Your task to perform on an android device: install app "Google Sheets" Image 0: 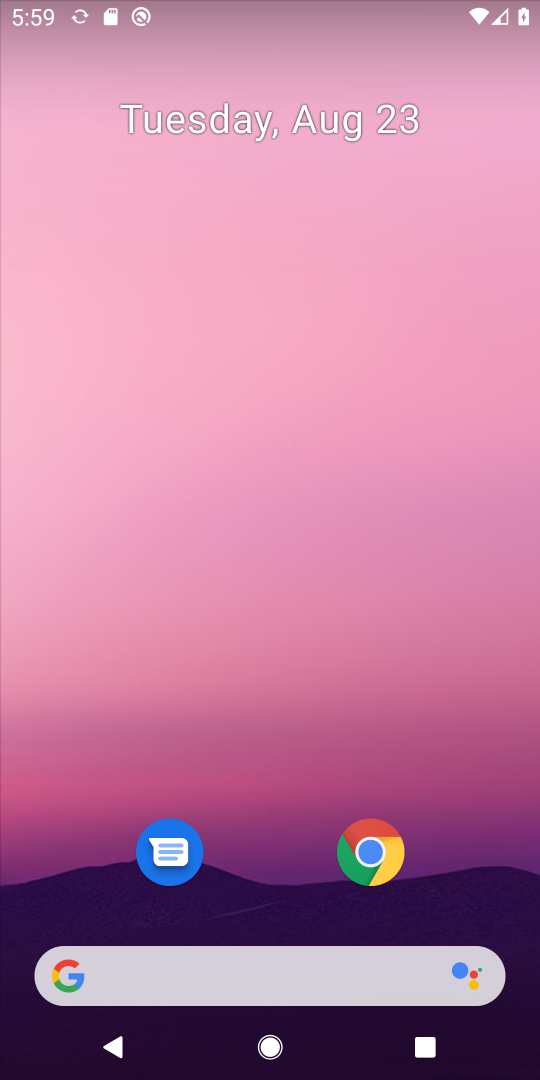
Step 0: drag from (217, 968) to (328, 122)
Your task to perform on an android device: install app "Google Sheets" Image 1: 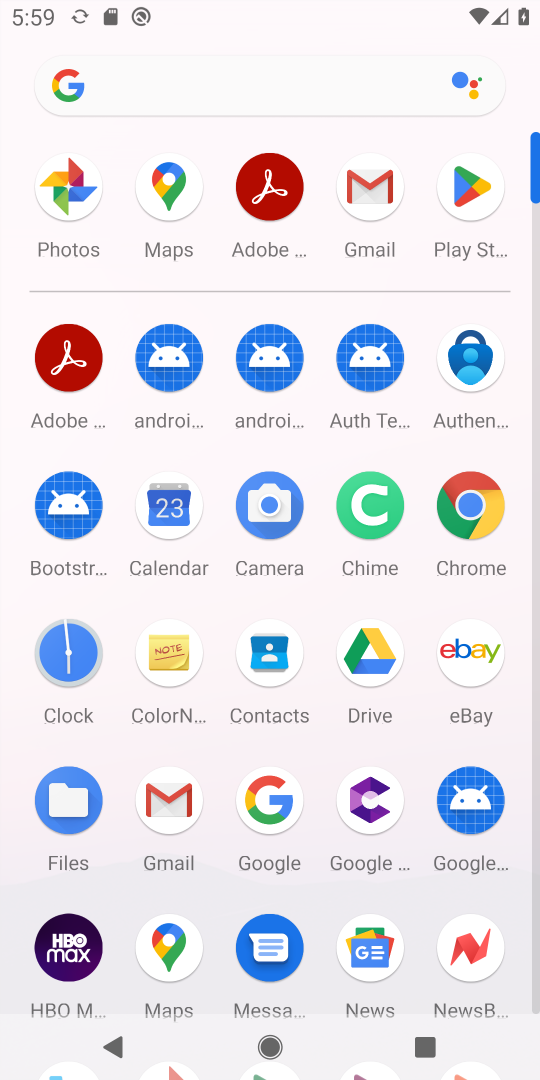
Step 1: click (474, 194)
Your task to perform on an android device: install app "Google Sheets" Image 2: 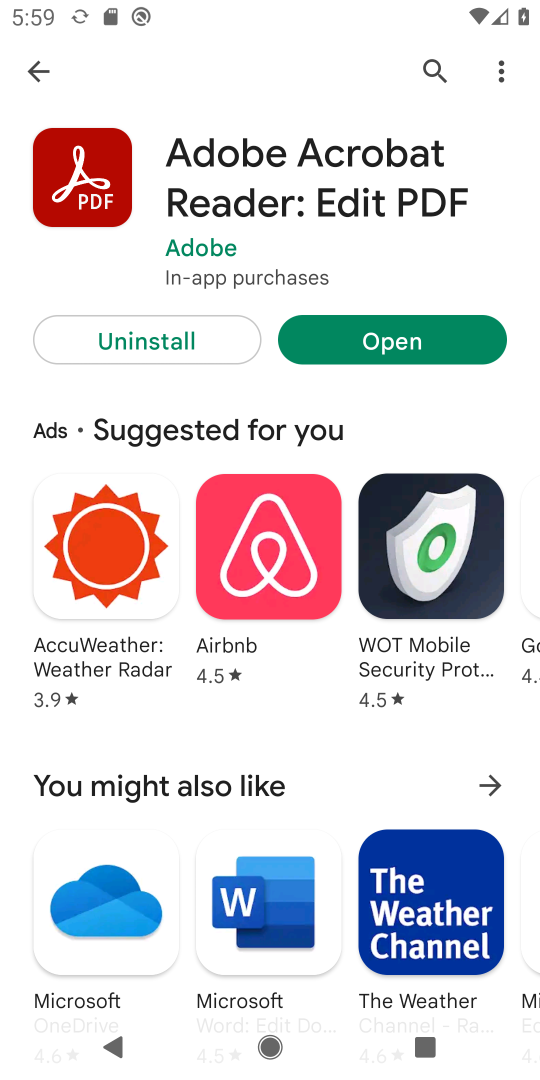
Step 2: press back button
Your task to perform on an android device: install app "Google Sheets" Image 3: 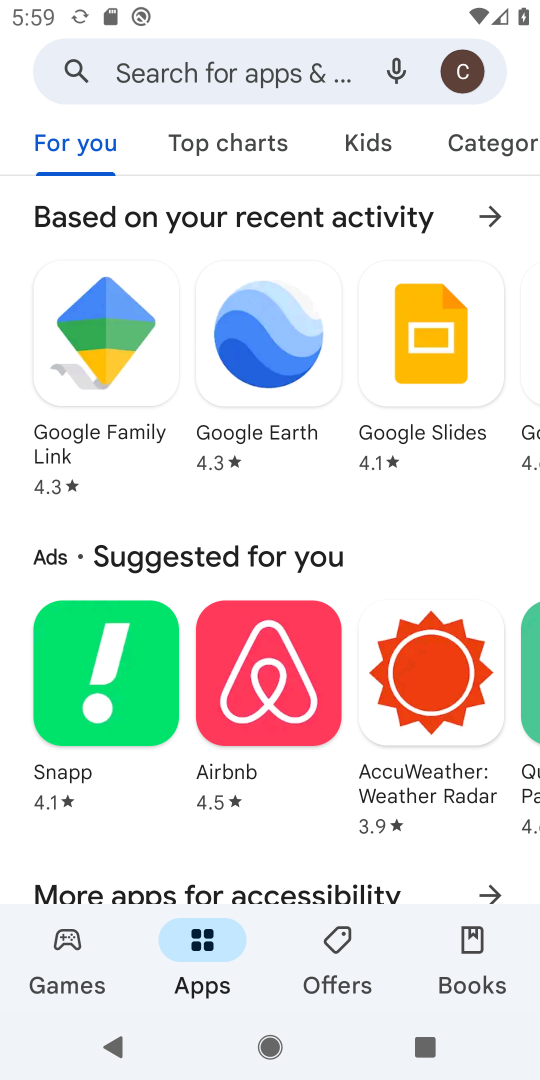
Step 3: click (255, 78)
Your task to perform on an android device: install app "Google Sheets" Image 4: 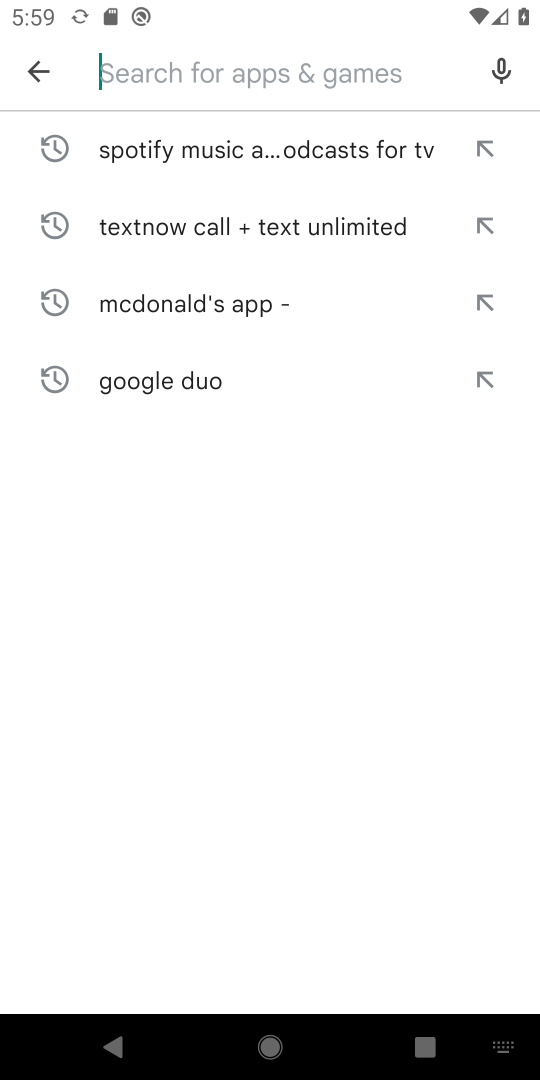
Step 4: type "Google Sheets"
Your task to perform on an android device: install app "Google Sheets" Image 5: 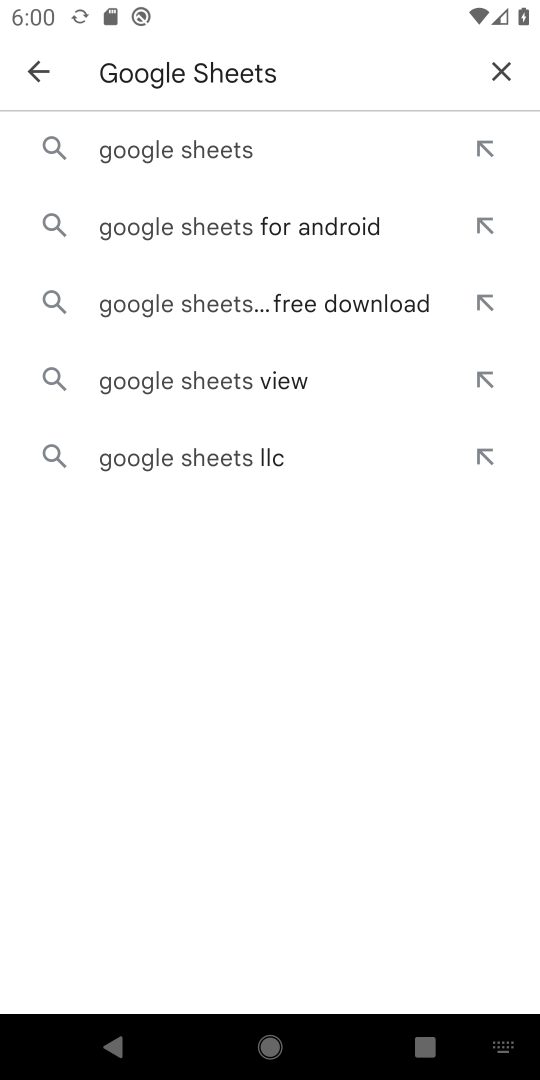
Step 5: click (225, 150)
Your task to perform on an android device: install app "Google Sheets" Image 6: 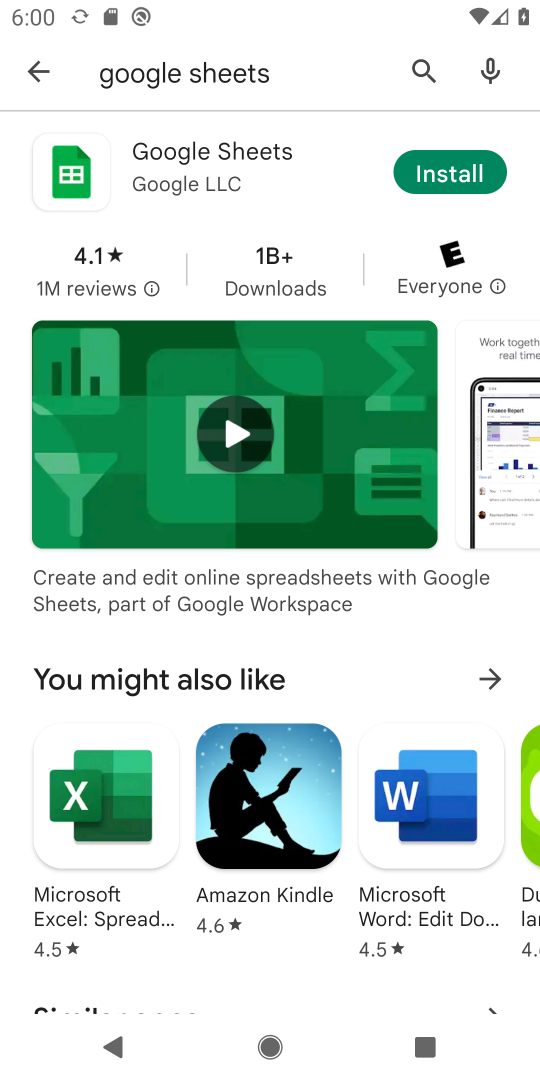
Step 6: click (432, 178)
Your task to perform on an android device: install app "Google Sheets" Image 7: 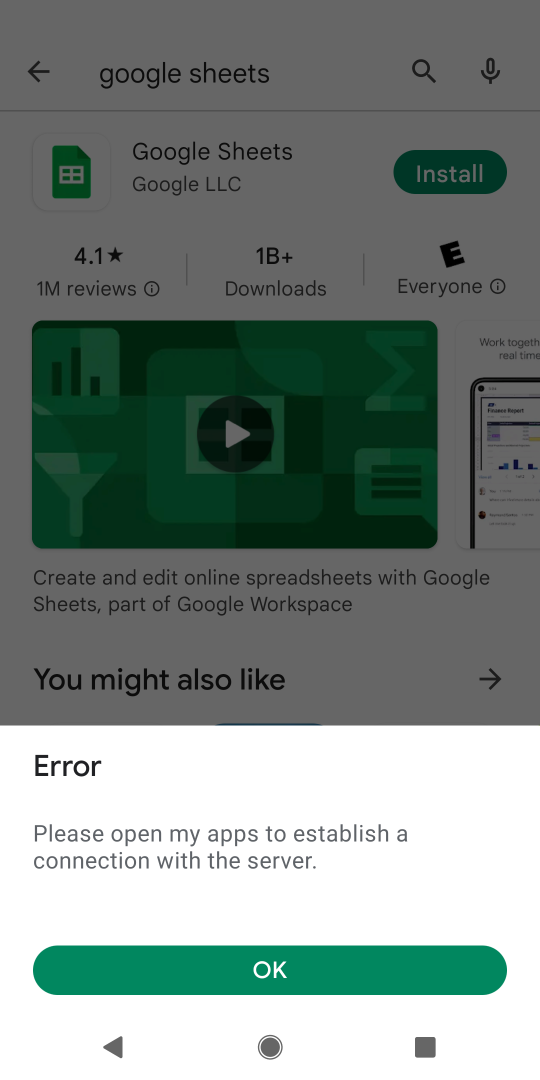
Step 7: click (275, 965)
Your task to perform on an android device: install app "Google Sheets" Image 8: 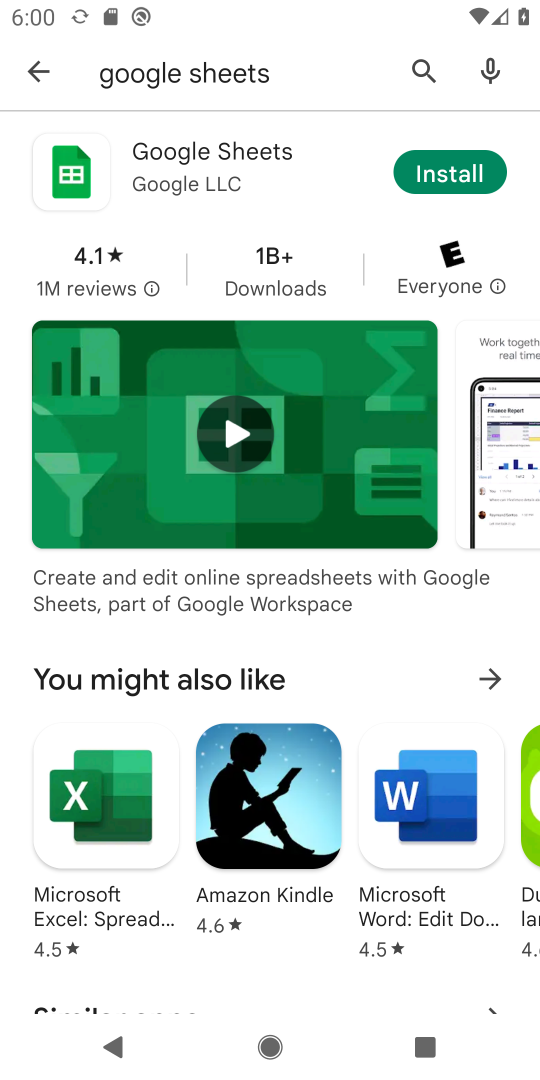
Step 8: click (439, 182)
Your task to perform on an android device: install app "Google Sheets" Image 9: 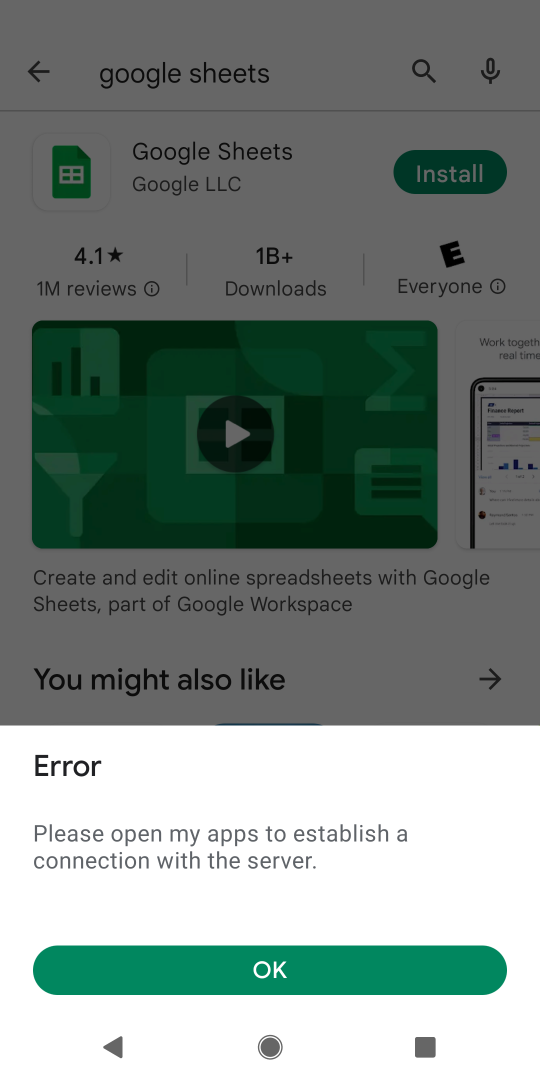
Step 9: click (203, 961)
Your task to perform on an android device: install app "Google Sheets" Image 10: 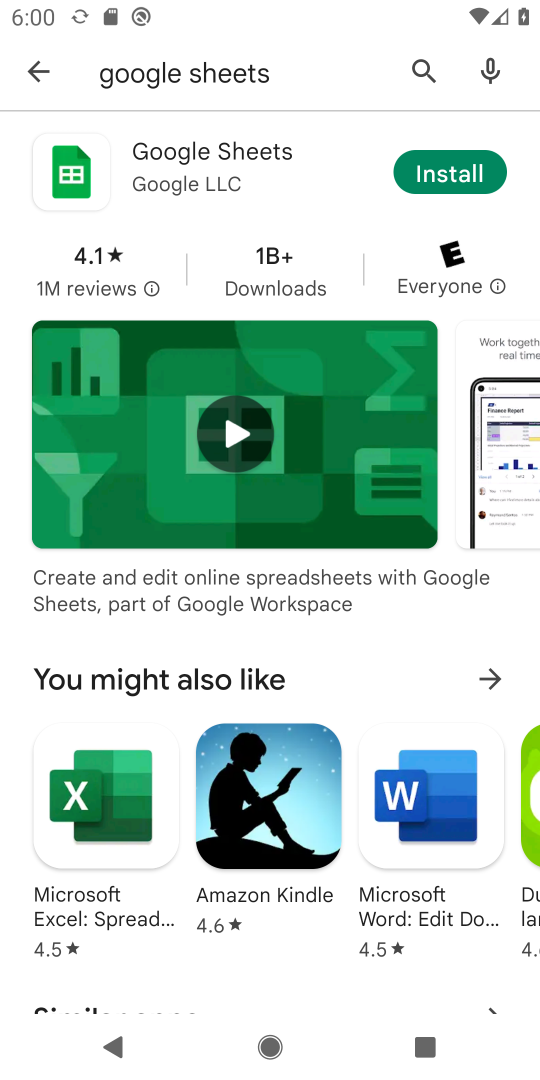
Step 10: task complete